Your task to perform on an android device: turn on showing notifications on the lock screen Image 0: 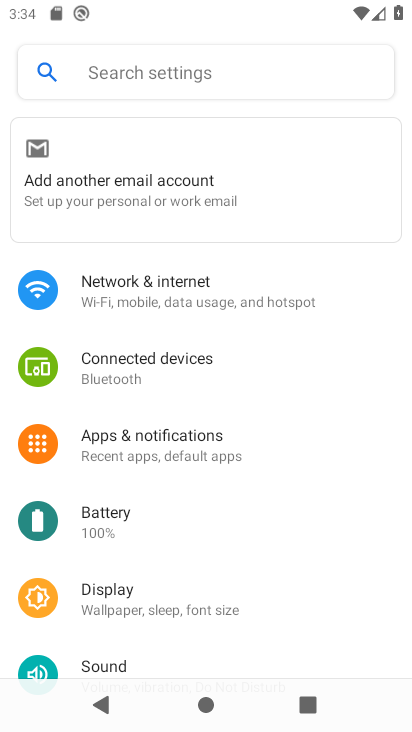
Step 0: click (196, 440)
Your task to perform on an android device: turn on showing notifications on the lock screen Image 1: 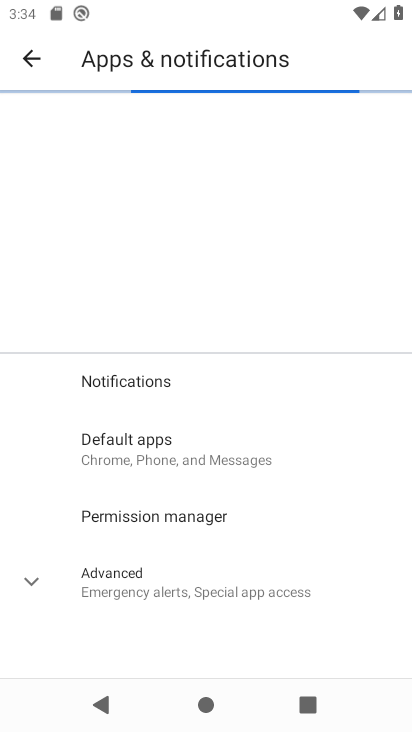
Step 1: click (258, 449)
Your task to perform on an android device: turn on showing notifications on the lock screen Image 2: 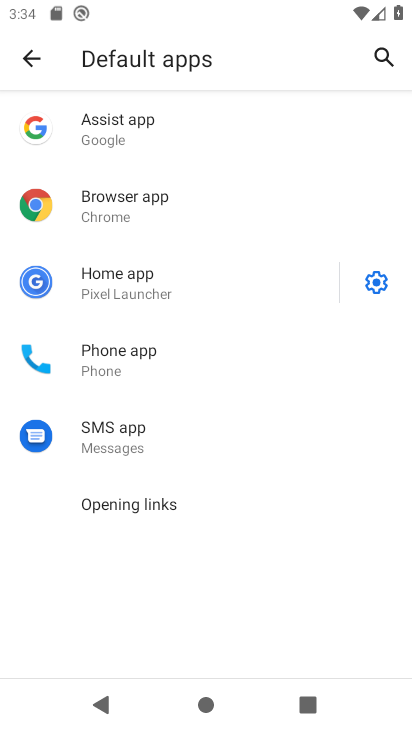
Step 2: click (39, 53)
Your task to perform on an android device: turn on showing notifications on the lock screen Image 3: 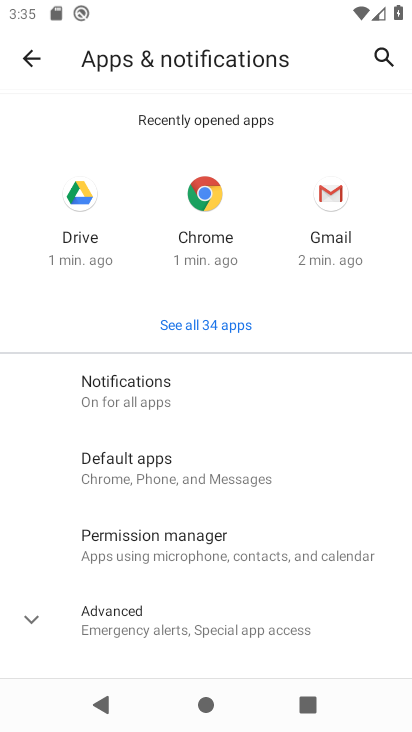
Step 3: click (145, 399)
Your task to perform on an android device: turn on showing notifications on the lock screen Image 4: 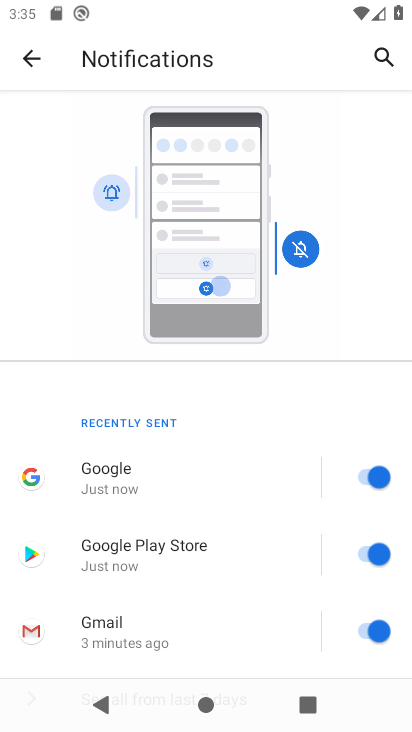
Step 4: drag from (166, 637) to (201, 292)
Your task to perform on an android device: turn on showing notifications on the lock screen Image 5: 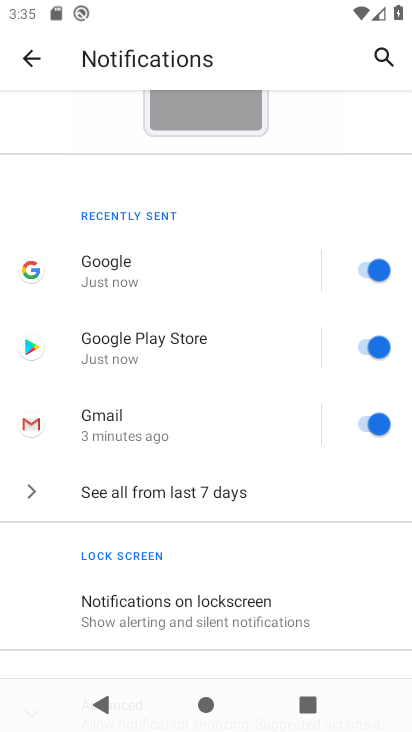
Step 5: click (251, 610)
Your task to perform on an android device: turn on showing notifications on the lock screen Image 6: 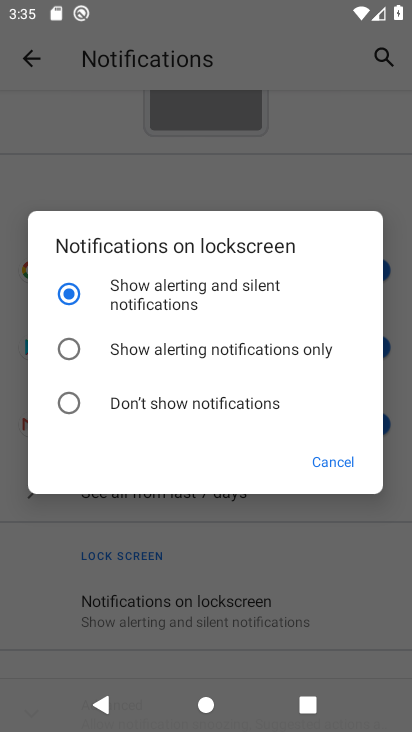
Step 6: task complete